Your task to perform on an android device: Go to Google Image 0: 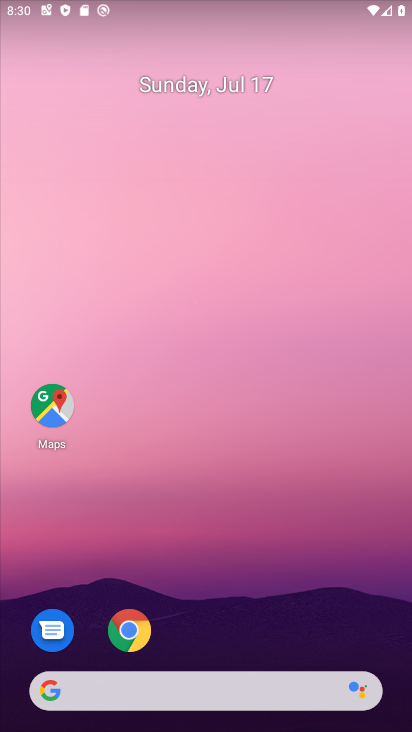
Step 0: drag from (193, 420) to (181, 98)
Your task to perform on an android device: Go to Google Image 1: 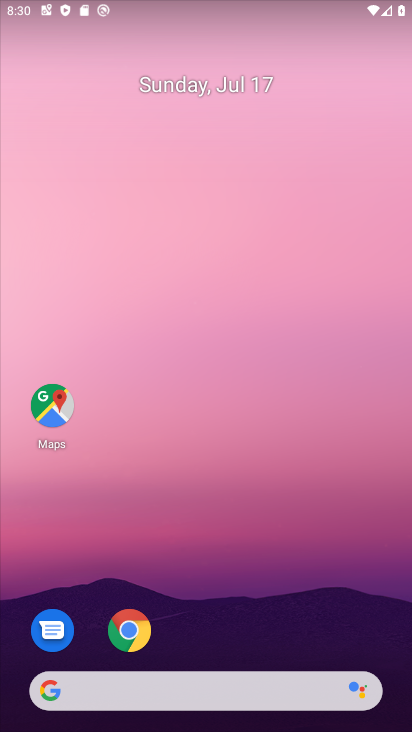
Step 1: drag from (270, 633) to (199, 27)
Your task to perform on an android device: Go to Google Image 2: 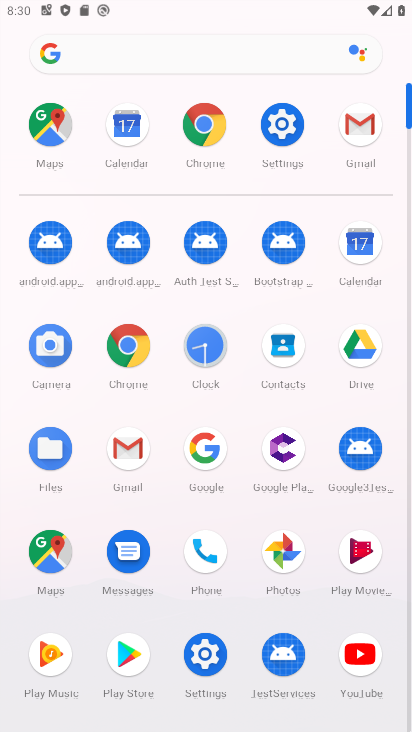
Step 2: click (202, 445)
Your task to perform on an android device: Go to Google Image 3: 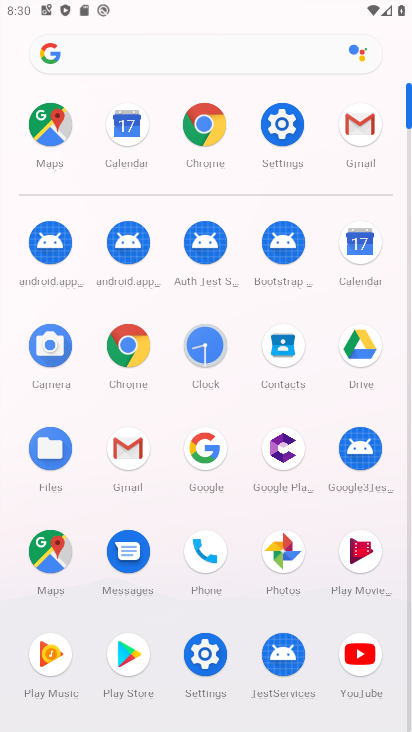
Step 3: click (202, 445)
Your task to perform on an android device: Go to Google Image 4: 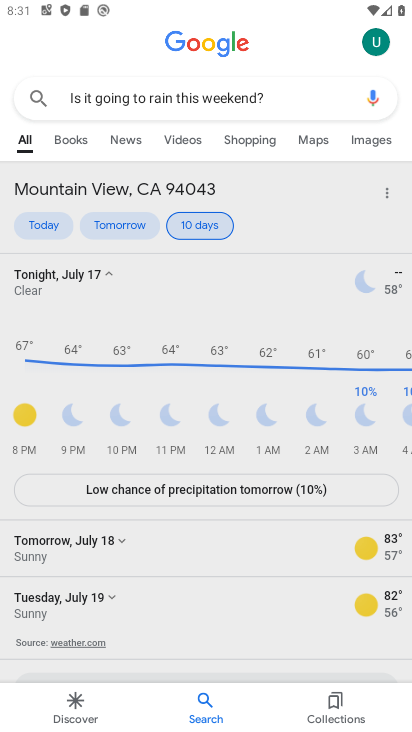
Step 4: task complete